Your task to perform on an android device: empty trash in the gmail app Image 0: 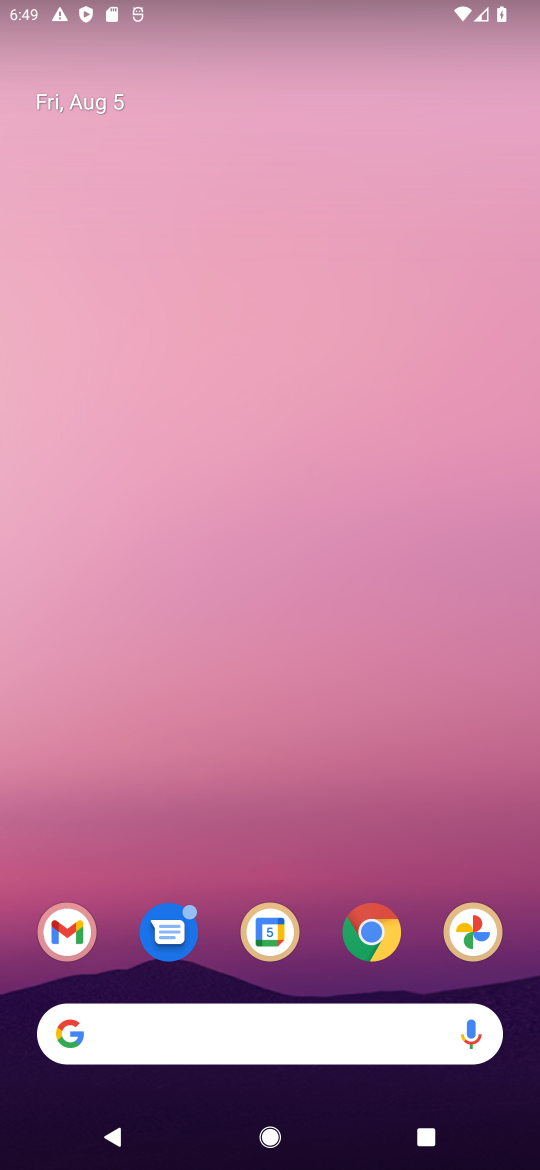
Step 0: click (63, 933)
Your task to perform on an android device: empty trash in the gmail app Image 1: 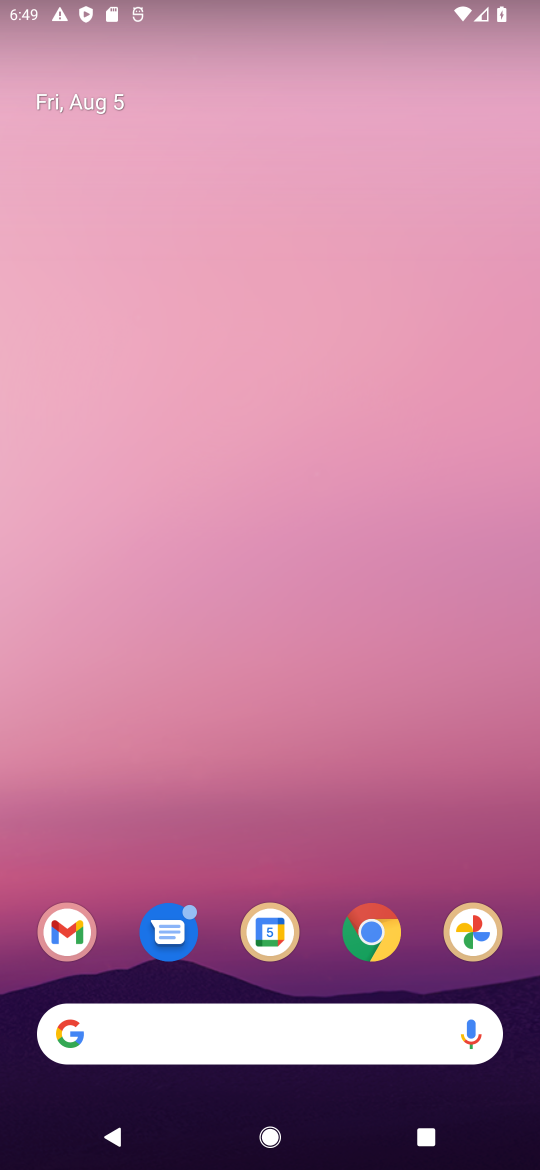
Step 1: click (73, 936)
Your task to perform on an android device: empty trash in the gmail app Image 2: 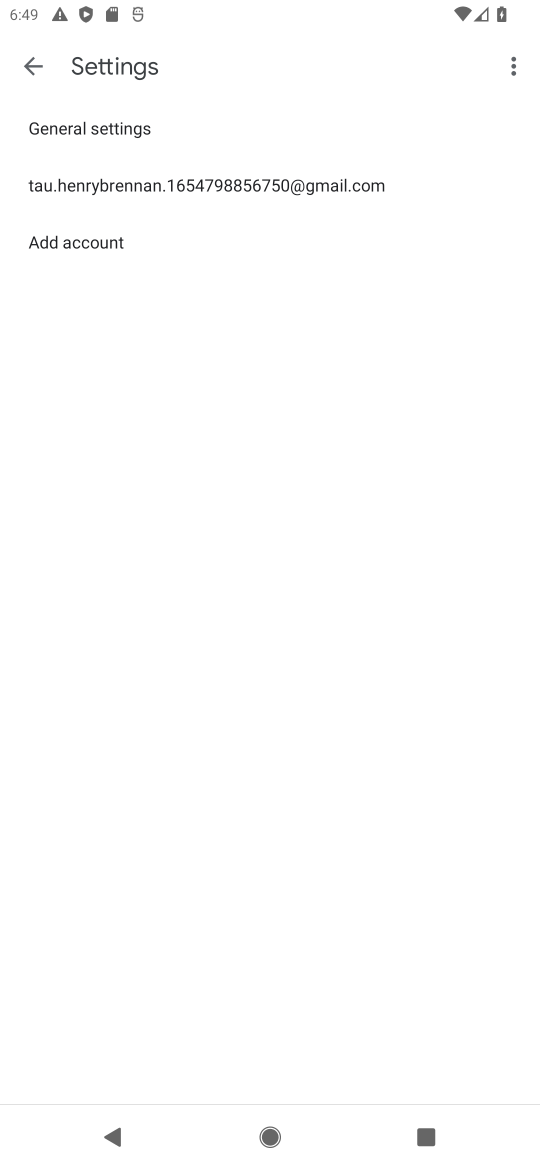
Step 2: task complete